Your task to perform on an android device: manage bookmarks in the chrome app Image 0: 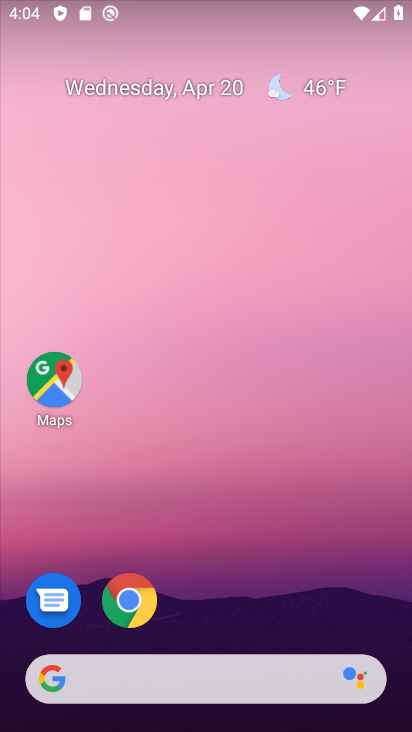
Step 0: click (133, 604)
Your task to perform on an android device: manage bookmarks in the chrome app Image 1: 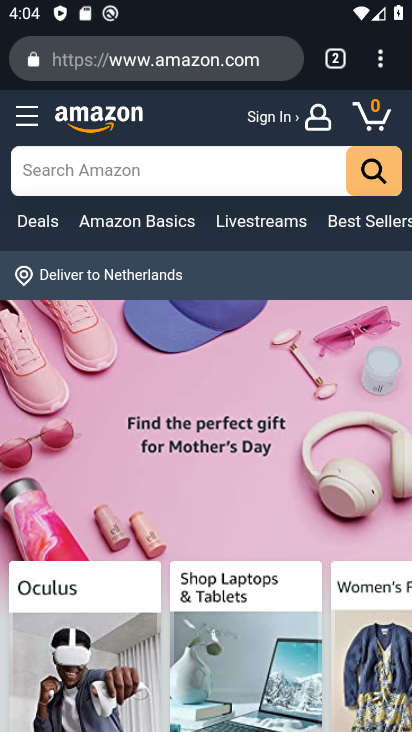
Step 1: click (373, 55)
Your task to perform on an android device: manage bookmarks in the chrome app Image 2: 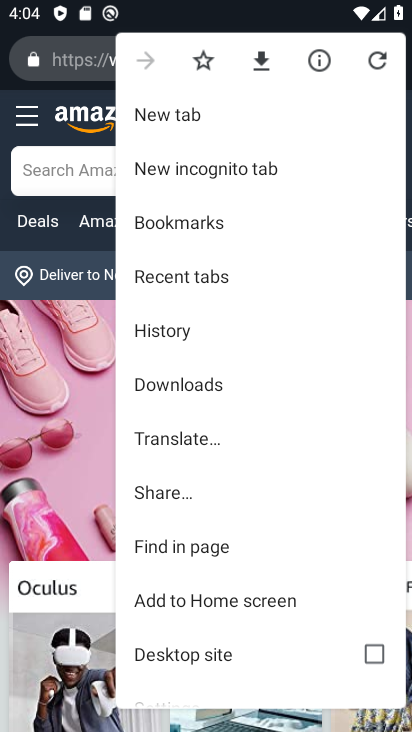
Step 2: click (180, 221)
Your task to perform on an android device: manage bookmarks in the chrome app Image 3: 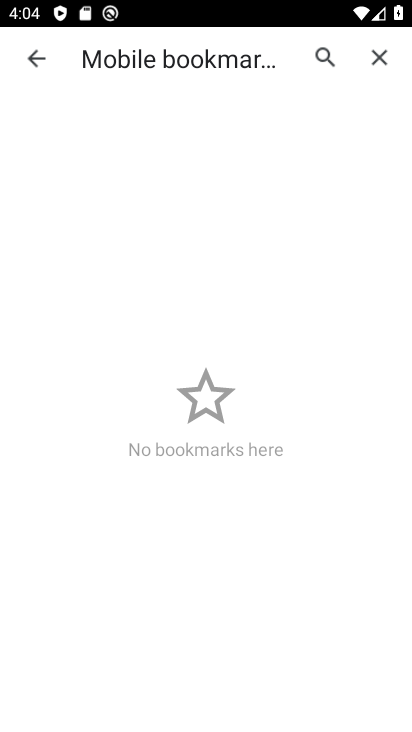
Step 3: task complete